Your task to perform on an android device: turn on javascript in the chrome app Image 0: 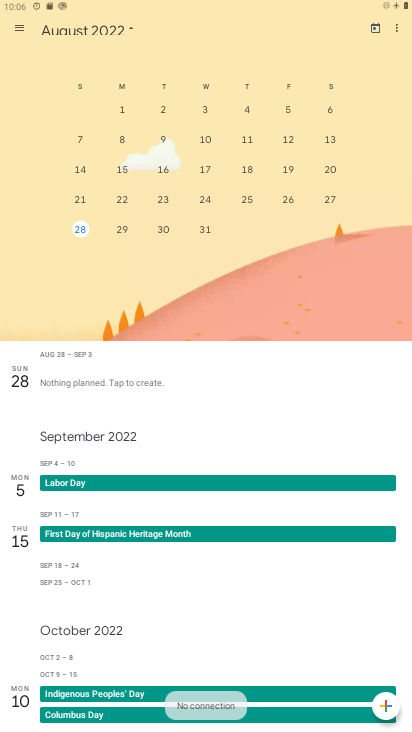
Step 0: press home button
Your task to perform on an android device: turn on javascript in the chrome app Image 1: 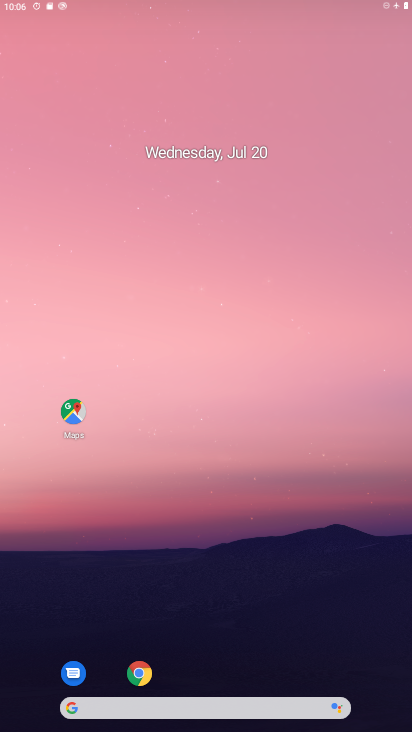
Step 1: drag from (367, 666) to (169, 50)
Your task to perform on an android device: turn on javascript in the chrome app Image 2: 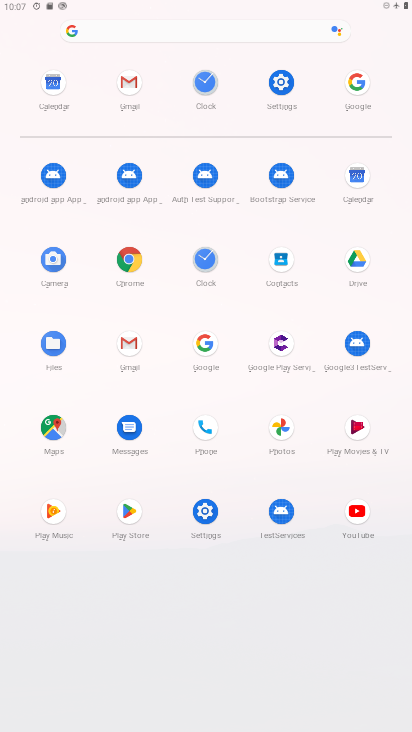
Step 2: click (122, 253)
Your task to perform on an android device: turn on javascript in the chrome app Image 3: 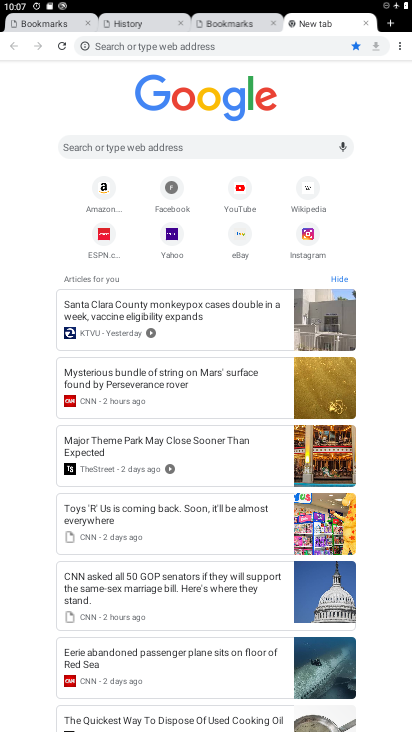
Step 3: click (398, 45)
Your task to perform on an android device: turn on javascript in the chrome app Image 4: 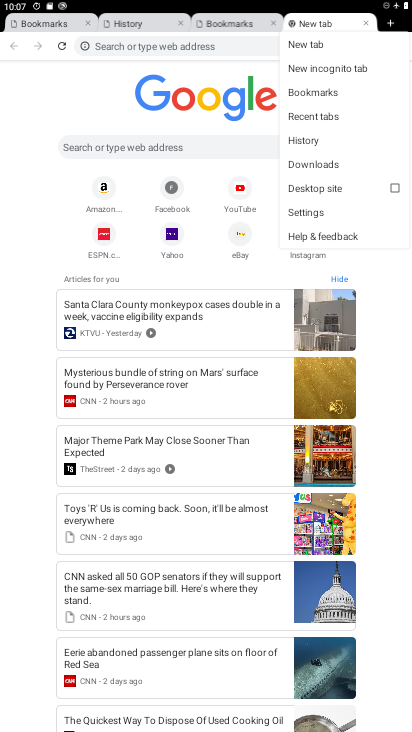
Step 4: click (318, 216)
Your task to perform on an android device: turn on javascript in the chrome app Image 5: 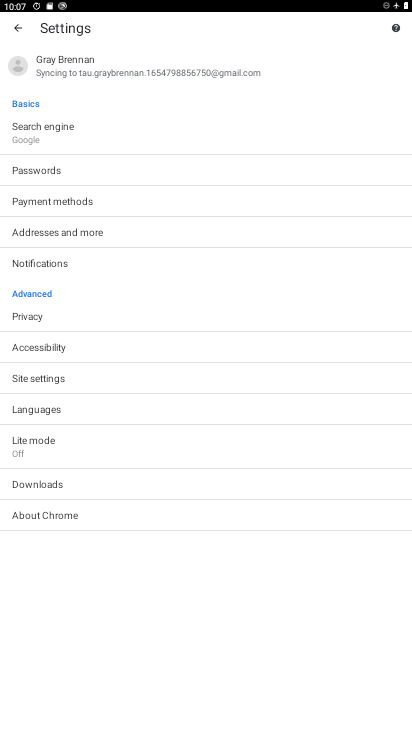
Step 5: click (51, 384)
Your task to perform on an android device: turn on javascript in the chrome app Image 6: 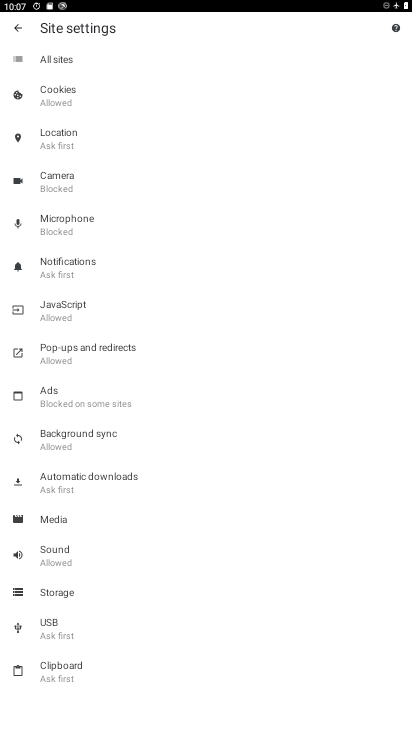
Step 6: click (80, 314)
Your task to perform on an android device: turn on javascript in the chrome app Image 7: 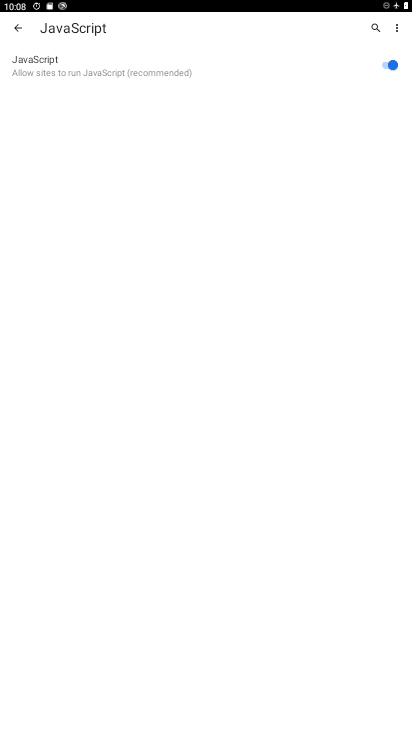
Step 7: task complete